Your task to perform on an android device: turn on wifi Image 0: 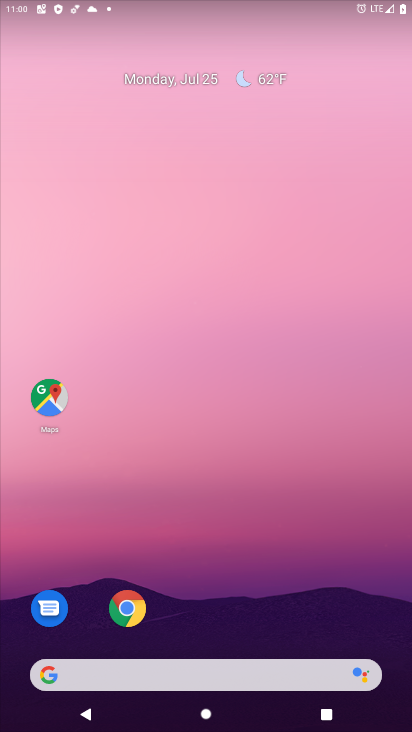
Step 0: drag from (228, 645) to (287, 6)
Your task to perform on an android device: turn on wifi Image 1: 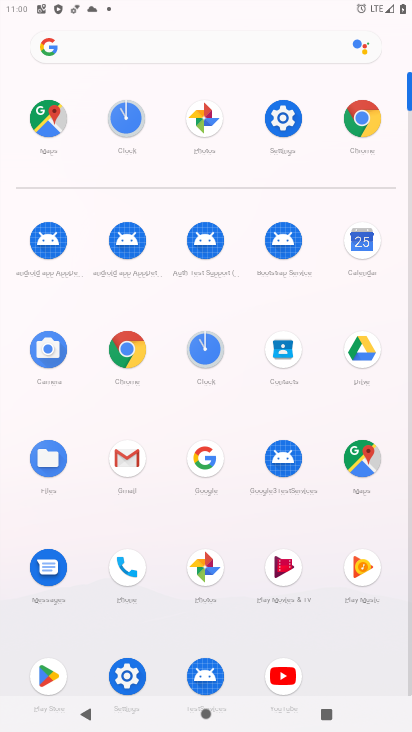
Step 1: click (125, 665)
Your task to perform on an android device: turn on wifi Image 2: 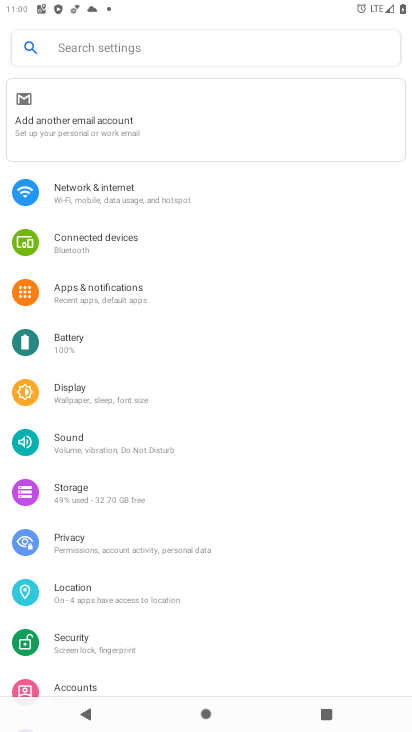
Step 2: click (135, 189)
Your task to perform on an android device: turn on wifi Image 3: 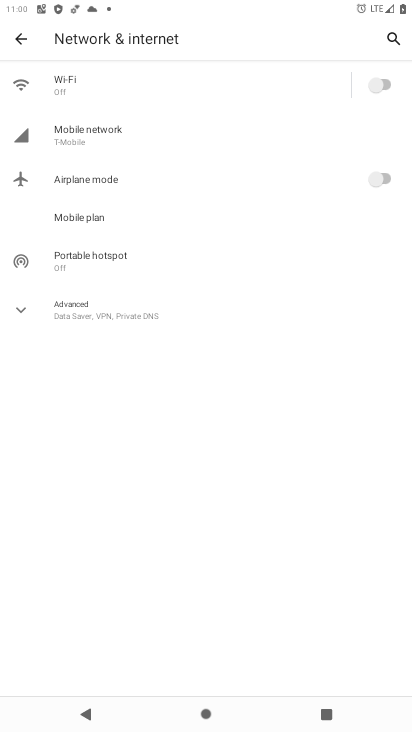
Step 3: click (393, 78)
Your task to perform on an android device: turn on wifi Image 4: 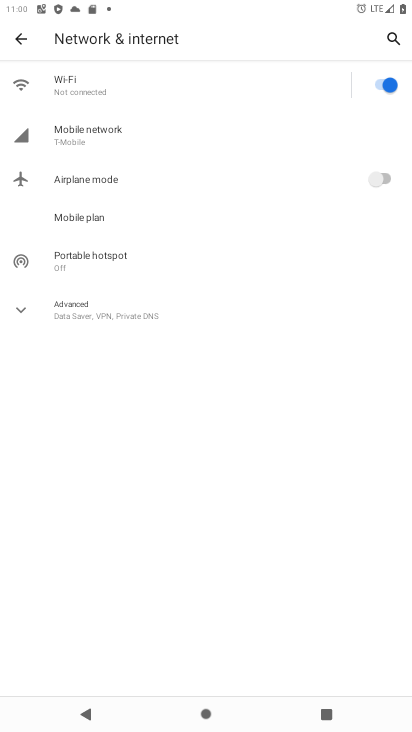
Step 4: task complete